Your task to perform on an android device: Clear the shopping cart on ebay. Add "usb-c to usb-b" to the cart on ebay, then select checkout. Image 0: 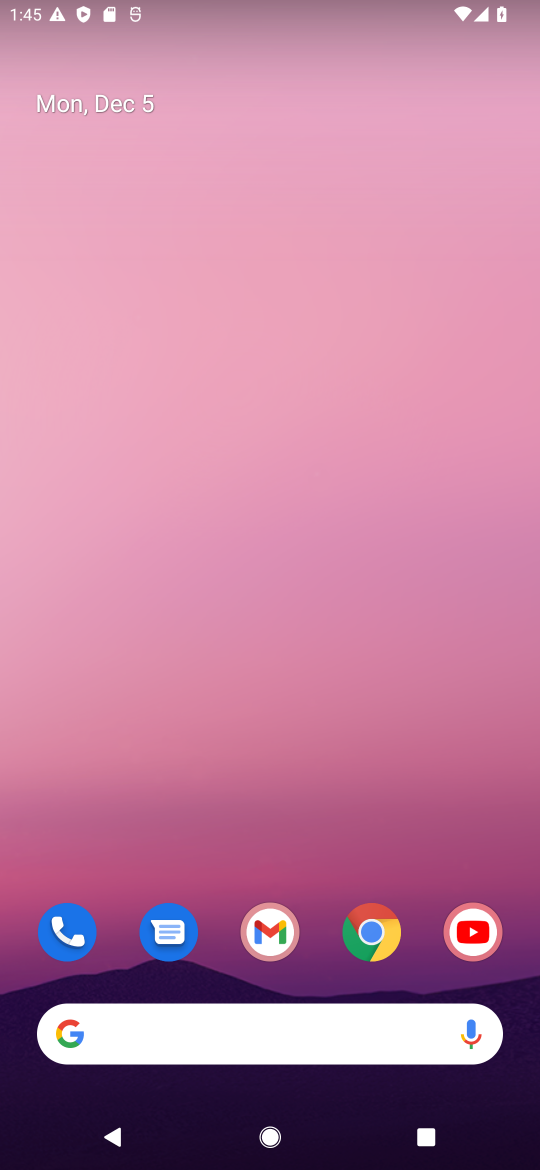
Step 0: task complete